Your task to perform on an android device: turn on sleep mode Image 0: 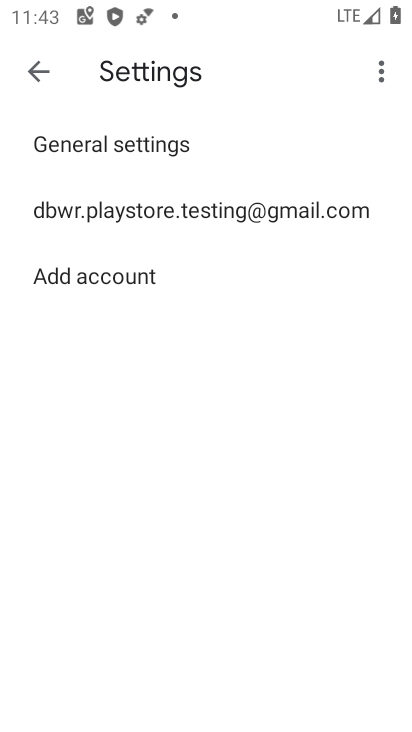
Step 0: press home button
Your task to perform on an android device: turn on sleep mode Image 1: 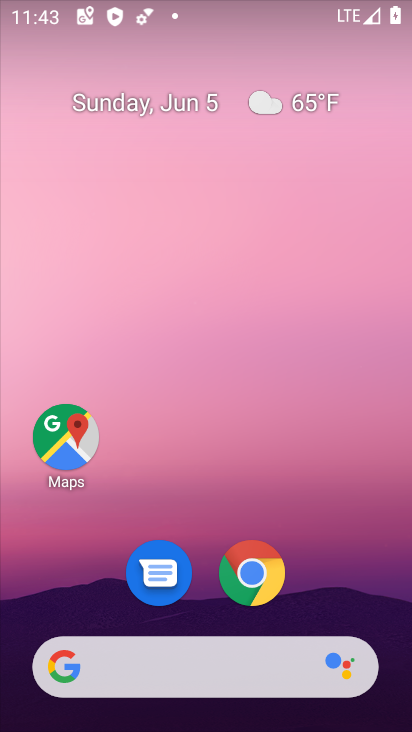
Step 1: drag from (217, 462) to (212, 0)
Your task to perform on an android device: turn on sleep mode Image 2: 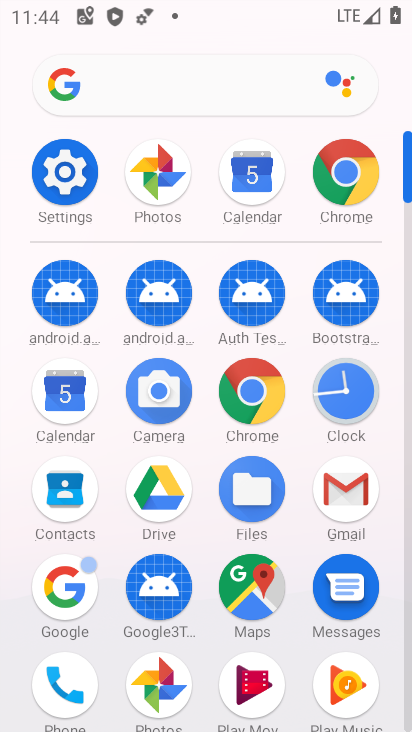
Step 2: drag from (190, 231) to (194, 7)
Your task to perform on an android device: turn on sleep mode Image 3: 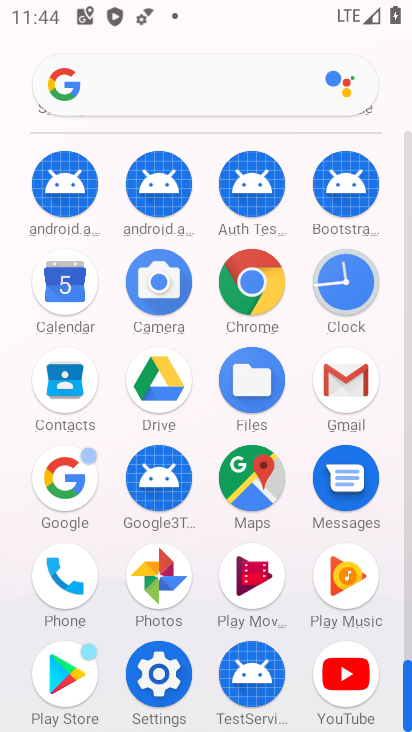
Step 3: click (167, 672)
Your task to perform on an android device: turn on sleep mode Image 4: 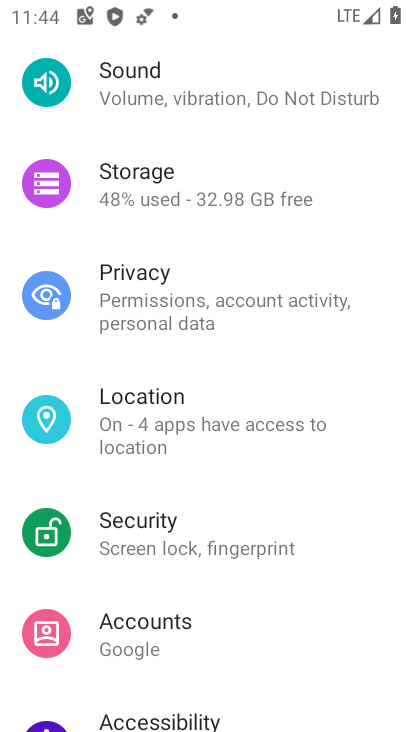
Step 4: task complete